Your task to perform on an android device: check google app version Image 0: 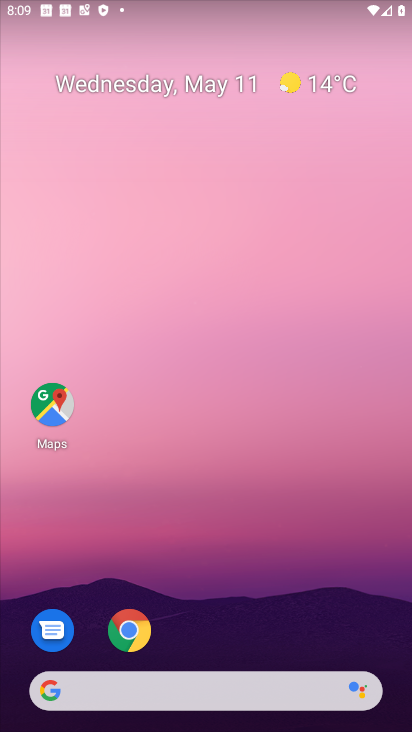
Step 0: drag from (204, 652) to (150, 202)
Your task to perform on an android device: check google app version Image 1: 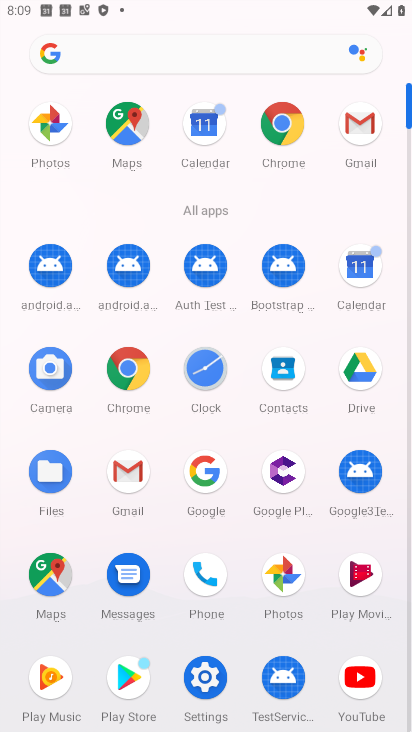
Step 1: click (207, 474)
Your task to perform on an android device: check google app version Image 2: 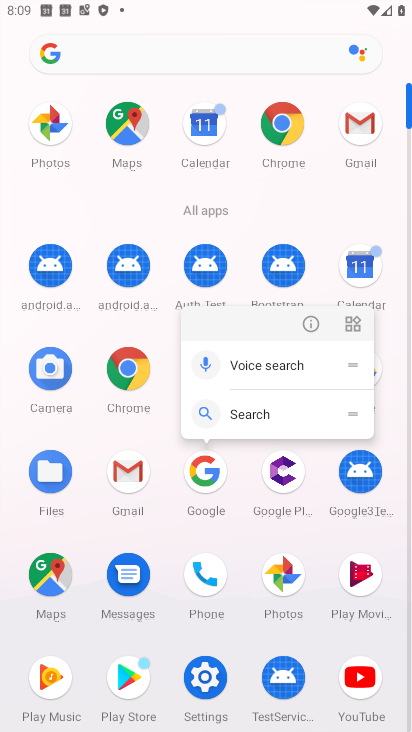
Step 2: click (306, 323)
Your task to perform on an android device: check google app version Image 3: 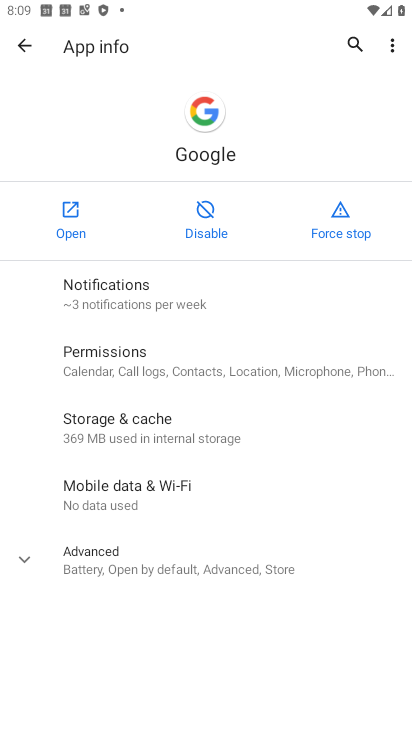
Step 3: click (157, 559)
Your task to perform on an android device: check google app version Image 4: 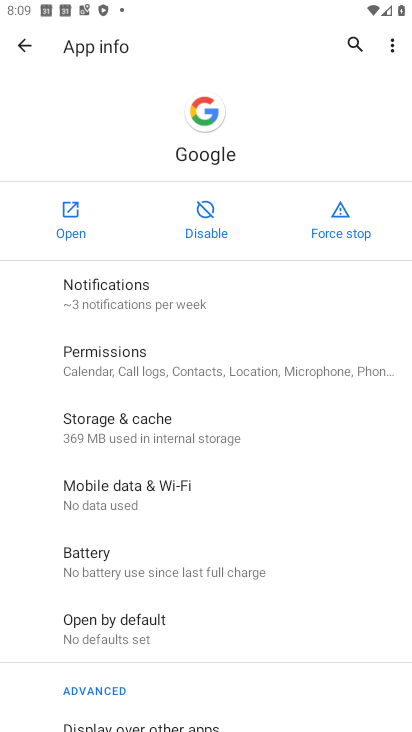
Step 4: task complete